Your task to perform on an android device: What's the weather? Image 0: 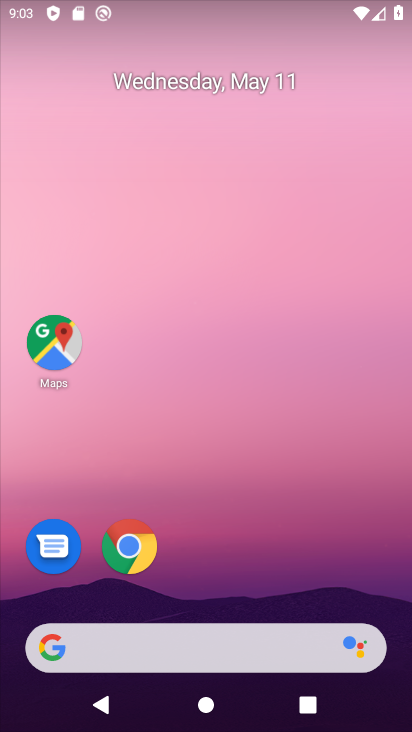
Step 0: drag from (19, 193) to (371, 329)
Your task to perform on an android device: What's the weather? Image 1: 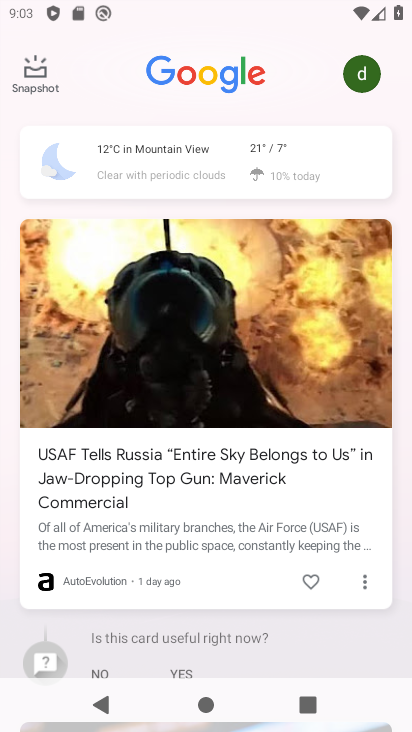
Step 1: click (276, 151)
Your task to perform on an android device: What's the weather? Image 2: 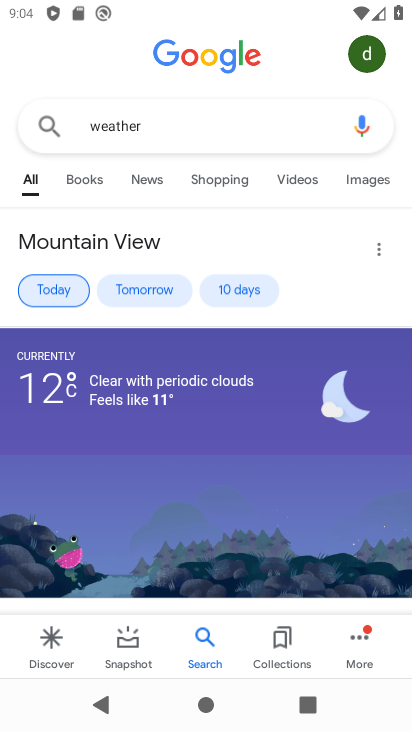
Step 2: task complete